Your task to perform on an android device: Open battery settings Image 0: 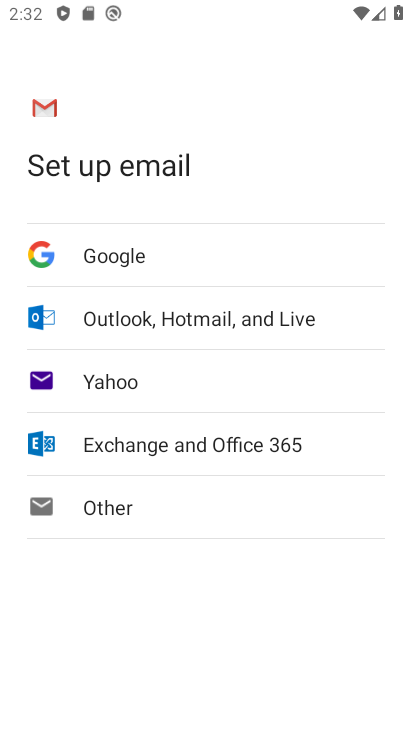
Step 0: click (393, 479)
Your task to perform on an android device: Open battery settings Image 1: 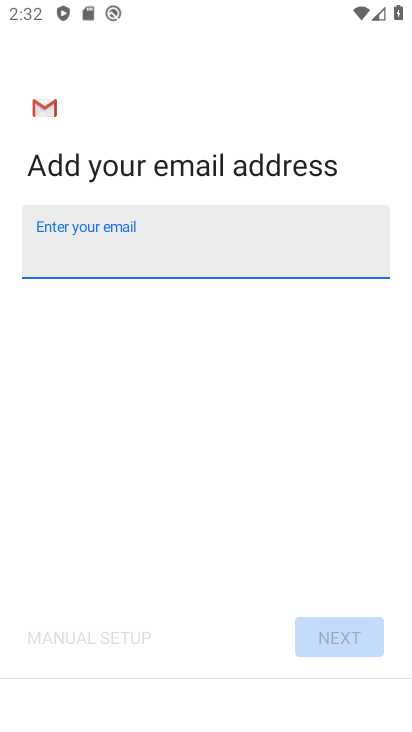
Step 1: press home button
Your task to perform on an android device: Open battery settings Image 2: 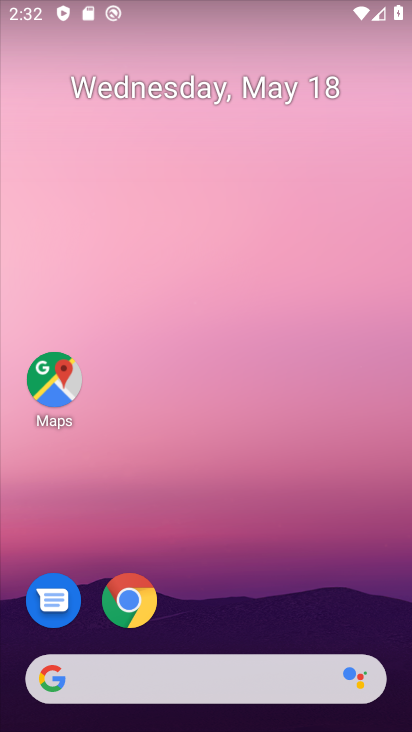
Step 2: drag from (191, 645) to (290, 161)
Your task to perform on an android device: Open battery settings Image 3: 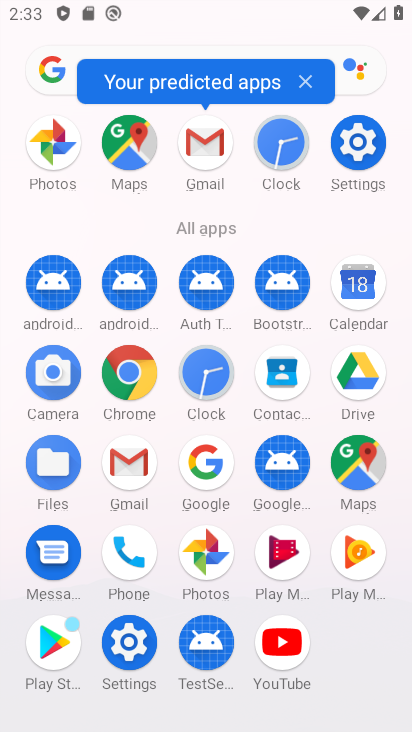
Step 3: click (126, 643)
Your task to perform on an android device: Open battery settings Image 4: 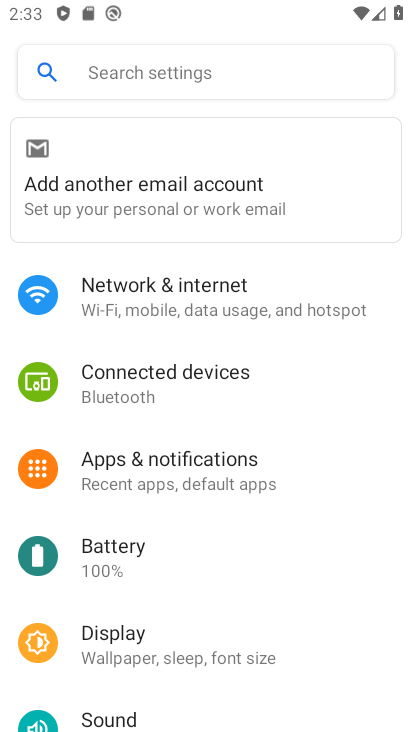
Step 4: click (150, 557)
Your task to perform on an android device: Open battery settings Image 5: 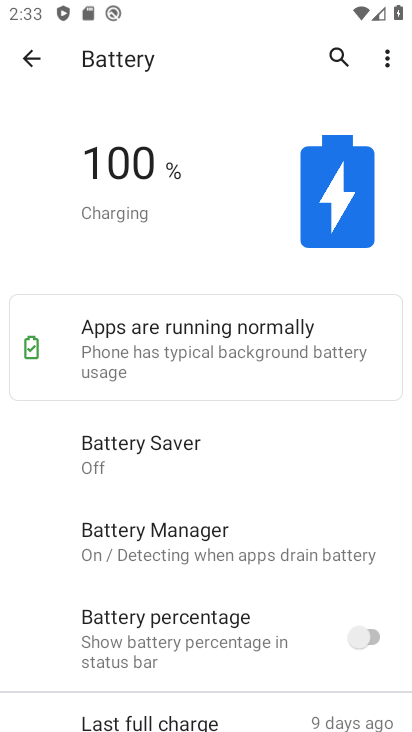
Step 5: task complete